Your task to perform on an android device: turn on improve location accuracy Image 0: 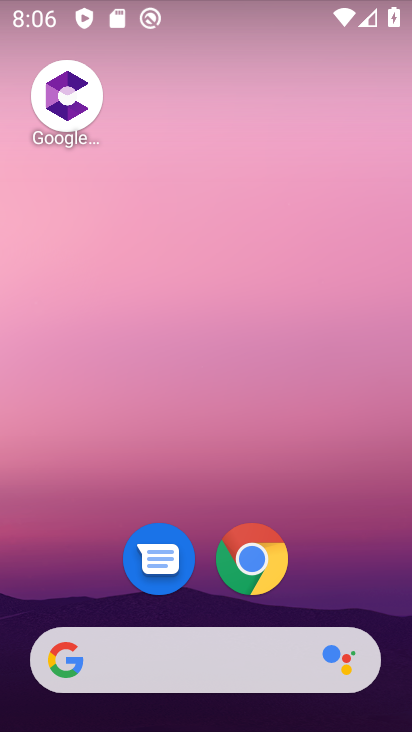
Step 0: drag from (191, 621) to (196, 101)
Your task to perform on an android device: turn on improve location accuracy Image 1: 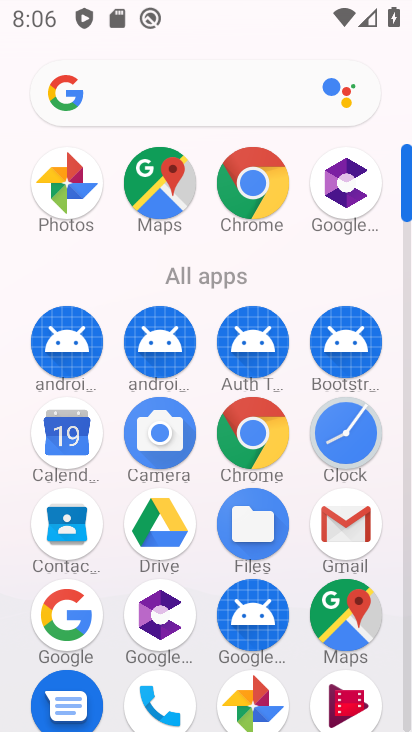
Step 1: drag from (216, 579) to (226, 28)
Your task to perform on an android device: turn on improve location accuracy Image 2: 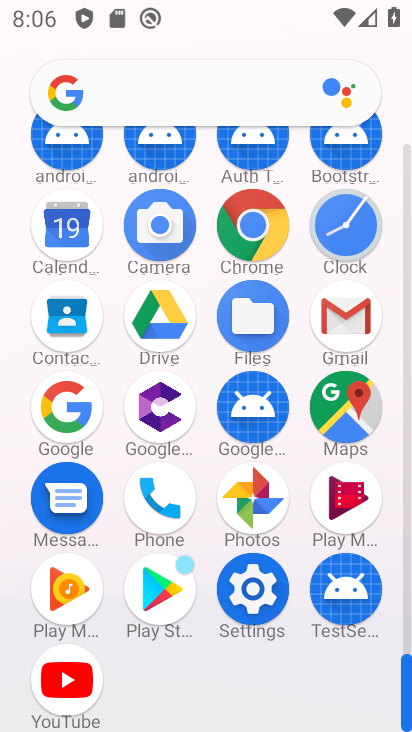
Step 2: click (250, 618)
Your task to perform on an android device: turn on improve location accuracy Image 3: 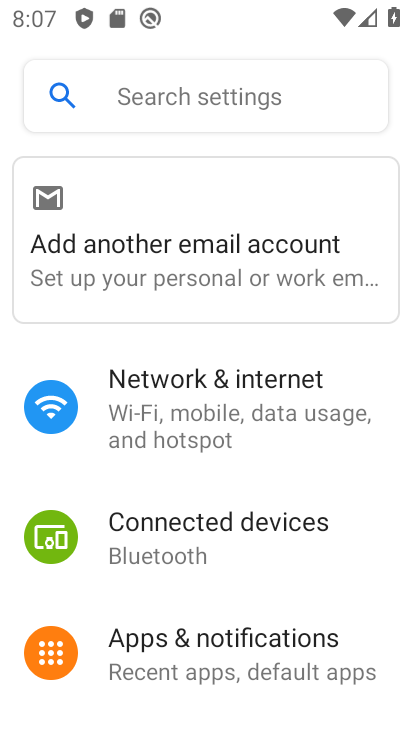
Step 3: drag from (246, 630) to (180, 82)
Your task to perform on an android device: turn on improve location accuracy Image 4: 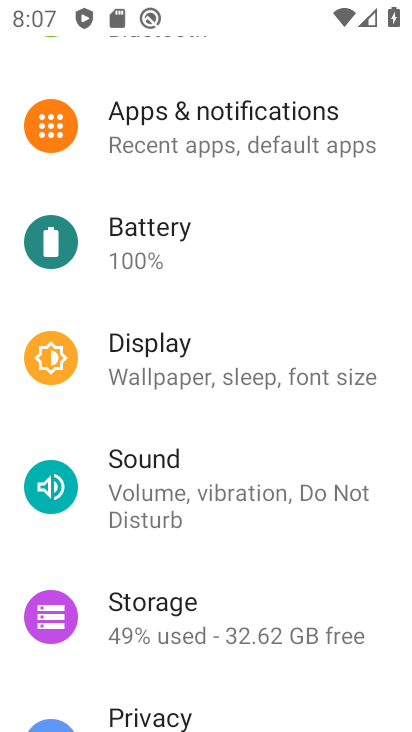
Step 4: drag from (238, 649) to (197, 66)
Your task to perform on an android device: turn on improve location accuracy Image 5: 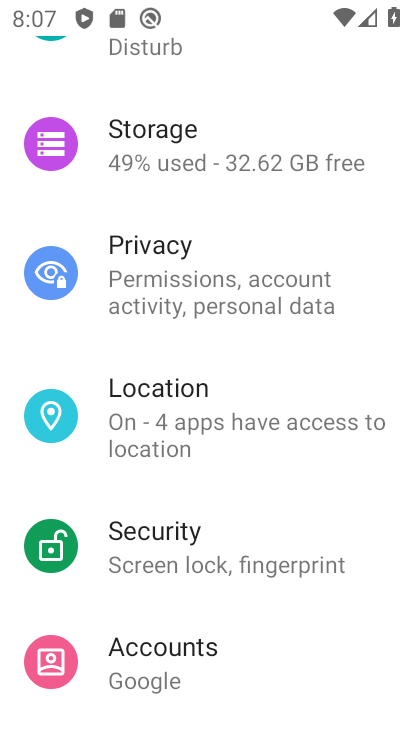
Step 5: click (140, 408)
Your task to perform on an android device: turn on improve location accuracy Image 6: 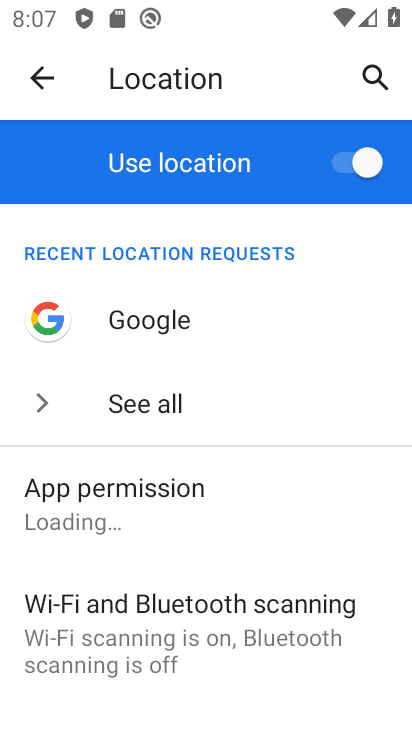
Step 6: drag from (161, 584) to (140, 298)
Your task to perform on an android device: turn on improve location accuracy Image 7: 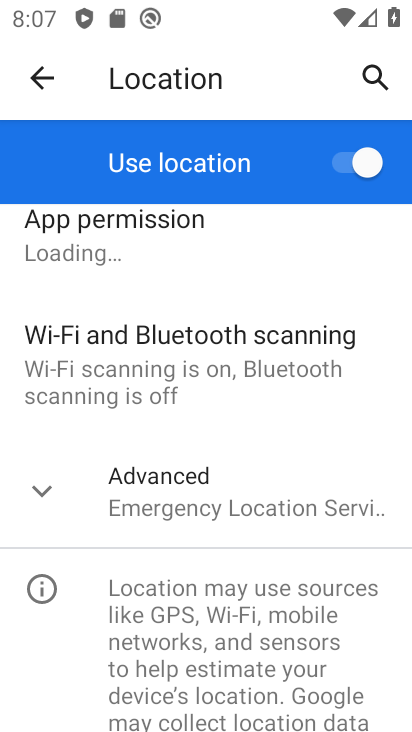
Step 7: click (131, 498)
Your task to perform on an android device: turn on improve location accuracy Image 8: 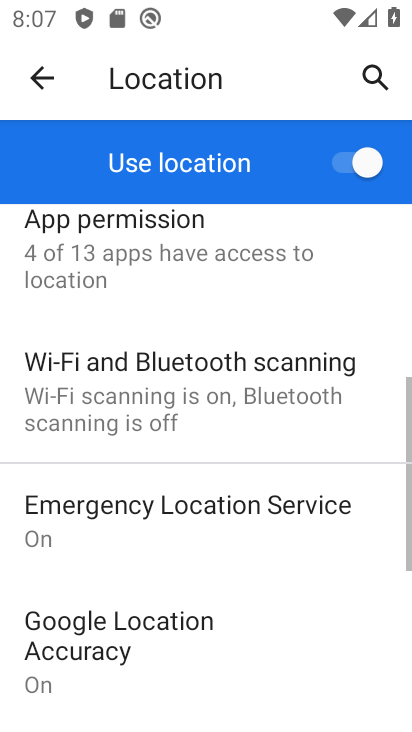
Step 8: click (156, 619)
Your task to perform on an android device: turn on improve location accuracy Image 9: 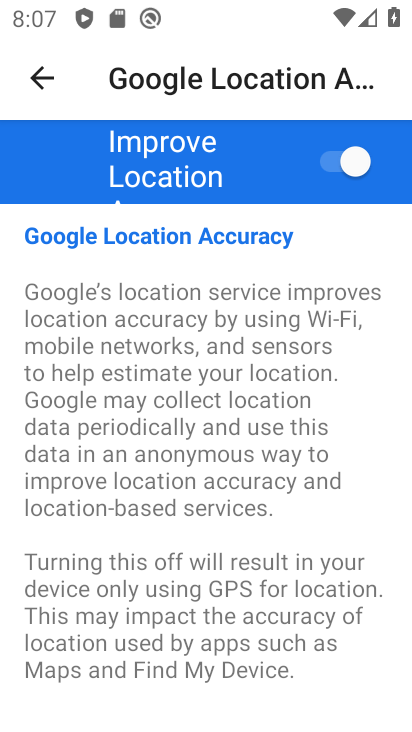
Step 9: task complete